Your task to perform on an android device: Show the shopping cart on amazon.com. Search for "jbl charge 4" on amazon.com, select the first entry, add it to the cart, then select checkout. Image 0: 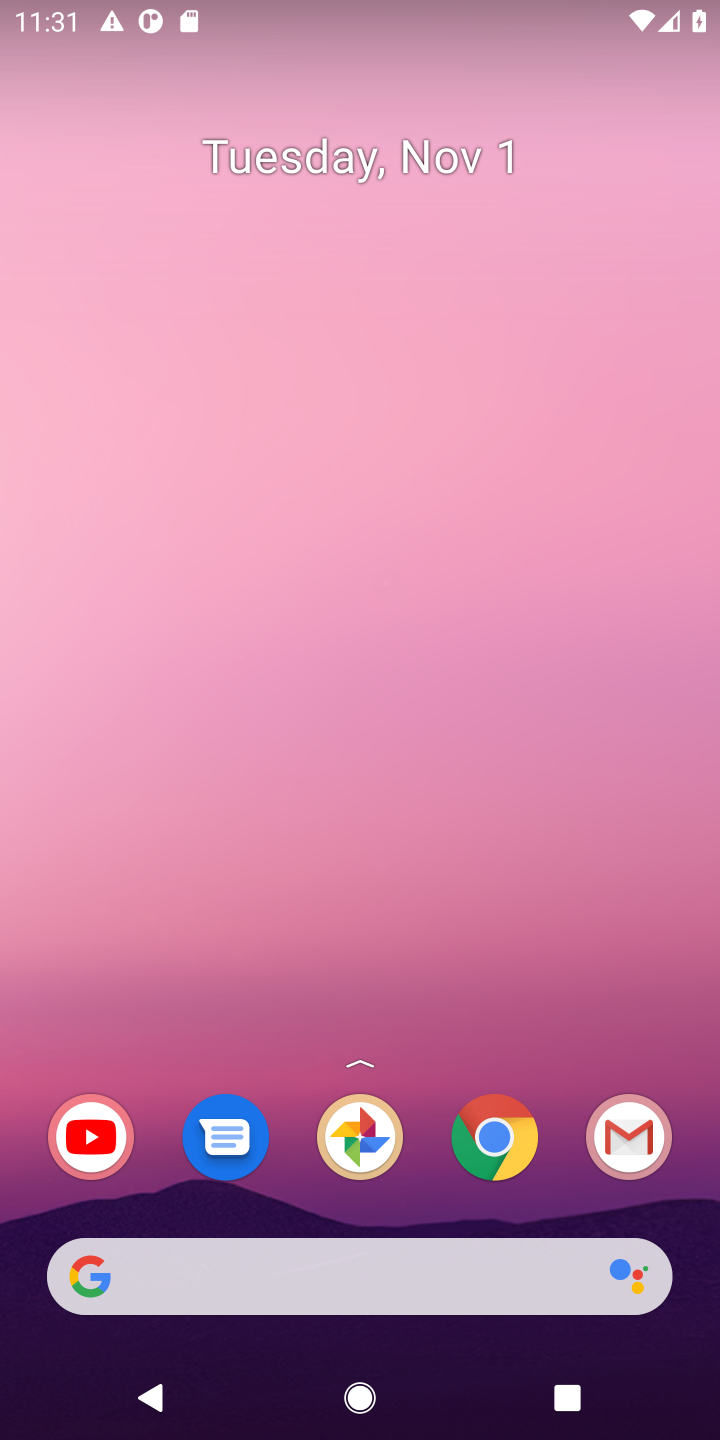
Step 0: click (313, 1257)
Your task to perform on an android device: Show the shopping cart on amazon.com. Search for "jbl charge 4" on amazon.com, select the first entry, add it to the cart, then select checkout. Image 1: 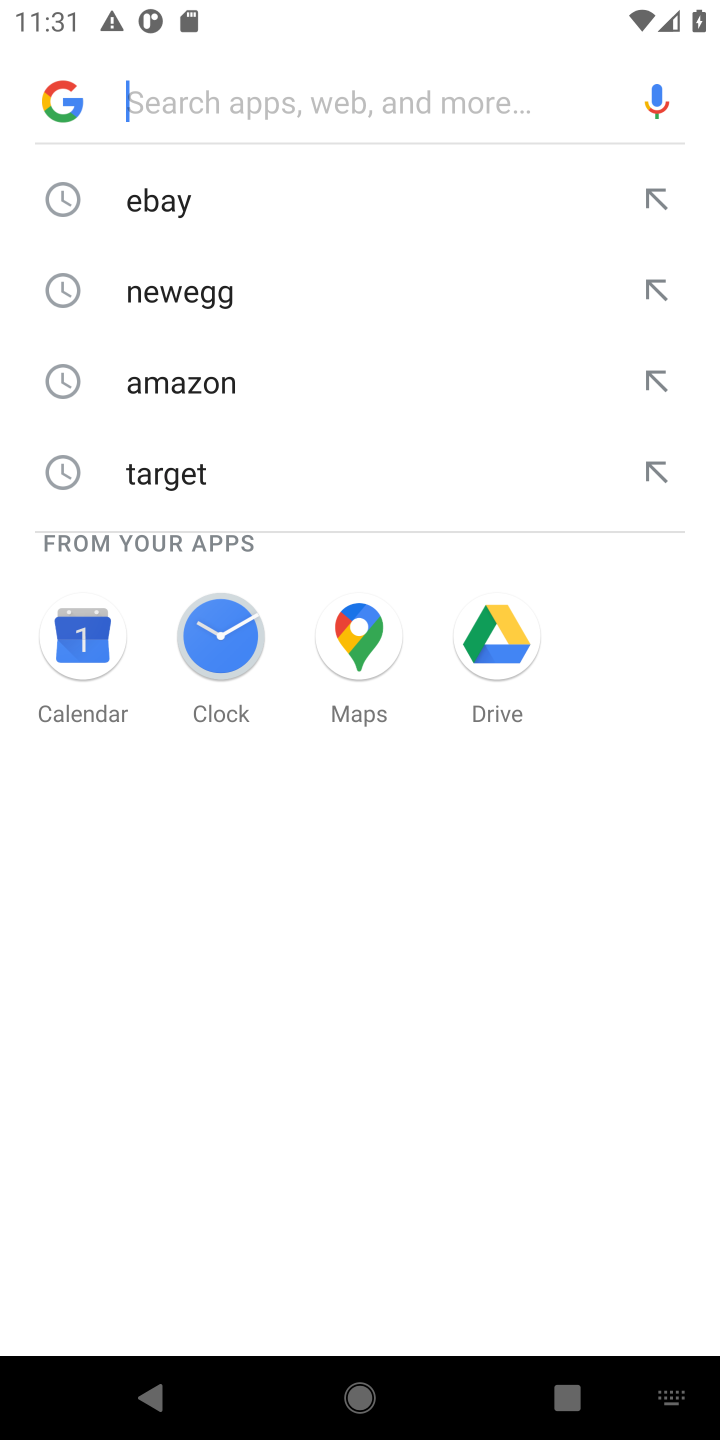
Step 1: click (220, 385)
Your task to perform on an android device: Show the shopping cart on amazon.com. Search for "jbl charge 4" on amazon.com, select the first entry, add it to the cart, then select checkout. Image 2: 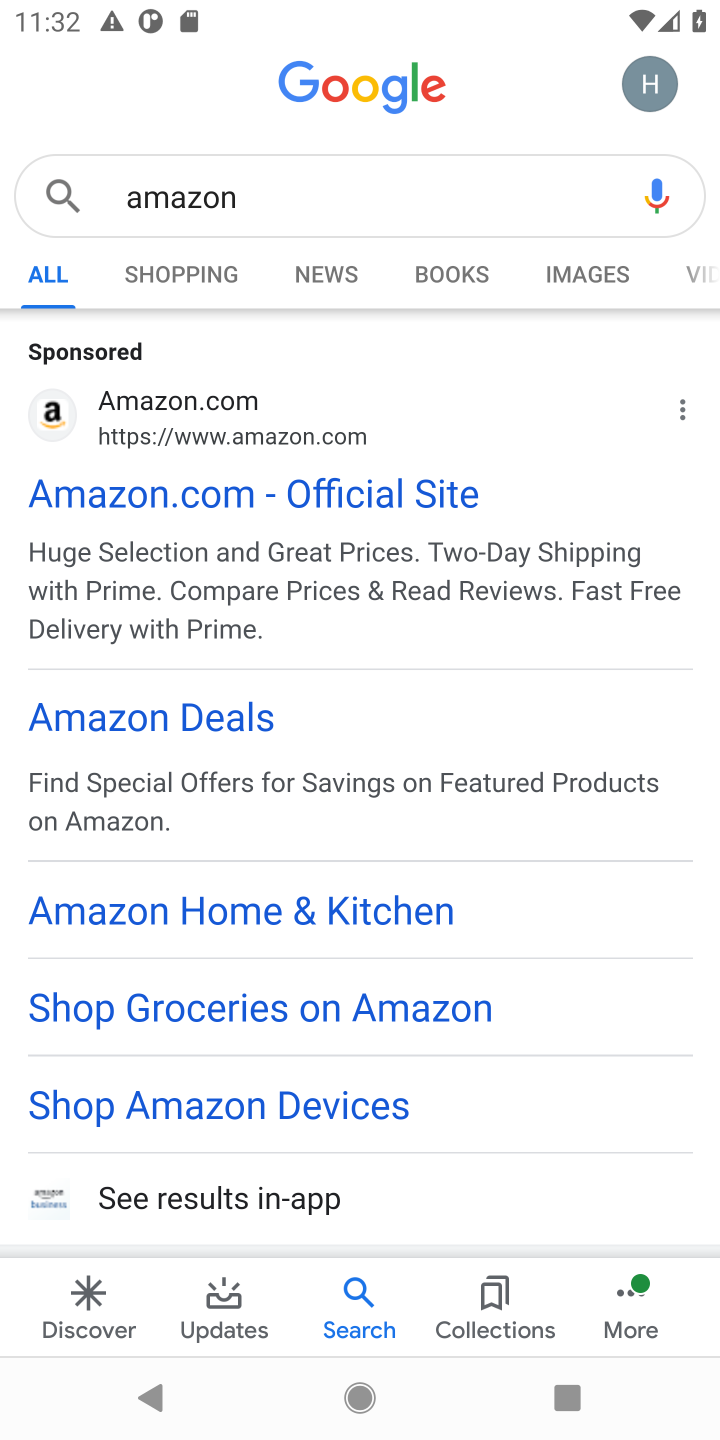
Step 2: click (132, 490)
Your task to perform on an android device: Show the shopping cart on amazon.com. Search for "jbl charge 4" on amazon.com, select the first entry, add it to the cart, then select checkout. Image 3: 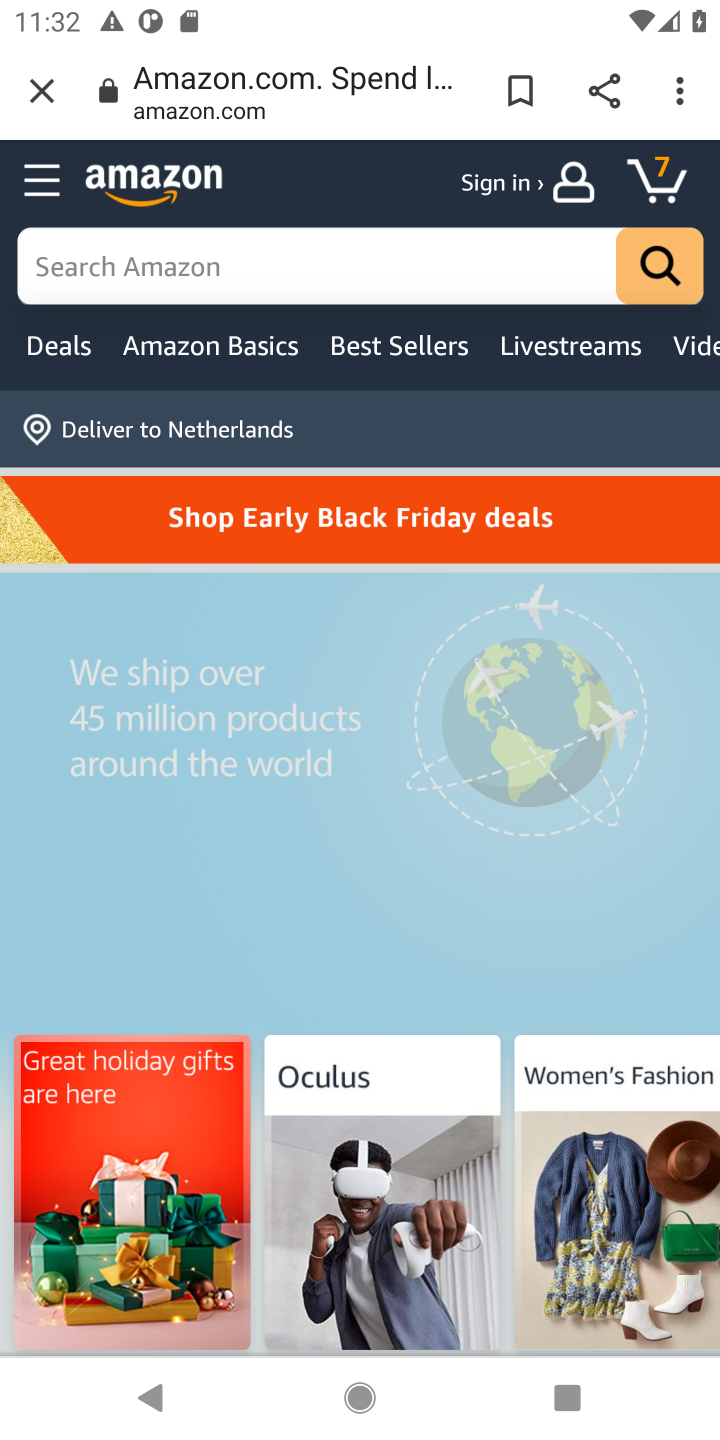
Step 3: click (660, 168)
Your task to perform on an android device: Show the shopping cart on amazon.com. Search for "jbl charge 4" on amazon.com, select the first entry, add it to the cart, then select checkout. Image 4: 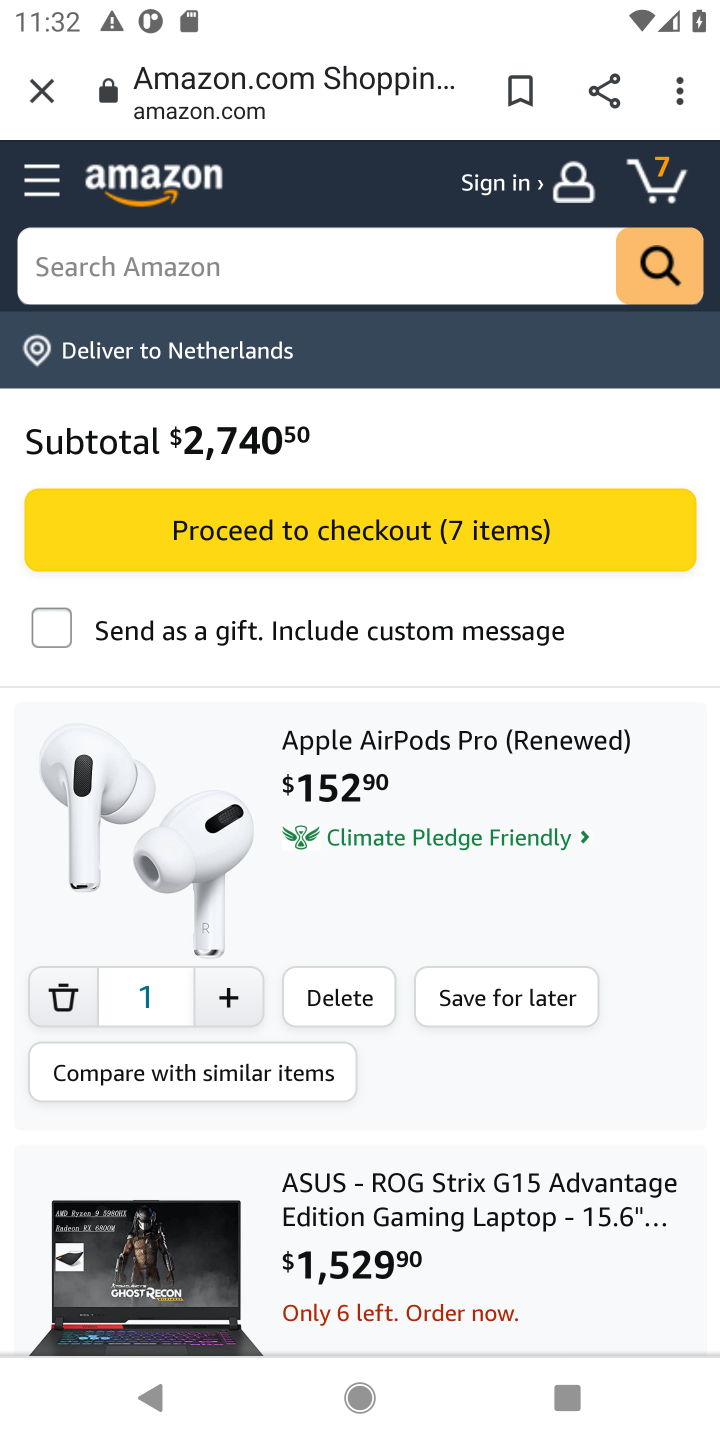
Step 4: click (436, 265)
Your task to perform on an android device: Show the shopping cart on amazon.com. Search for "jbl charge 4" on amazon.com, select the first entry, add it to the cart, then select checkout. Image 5: 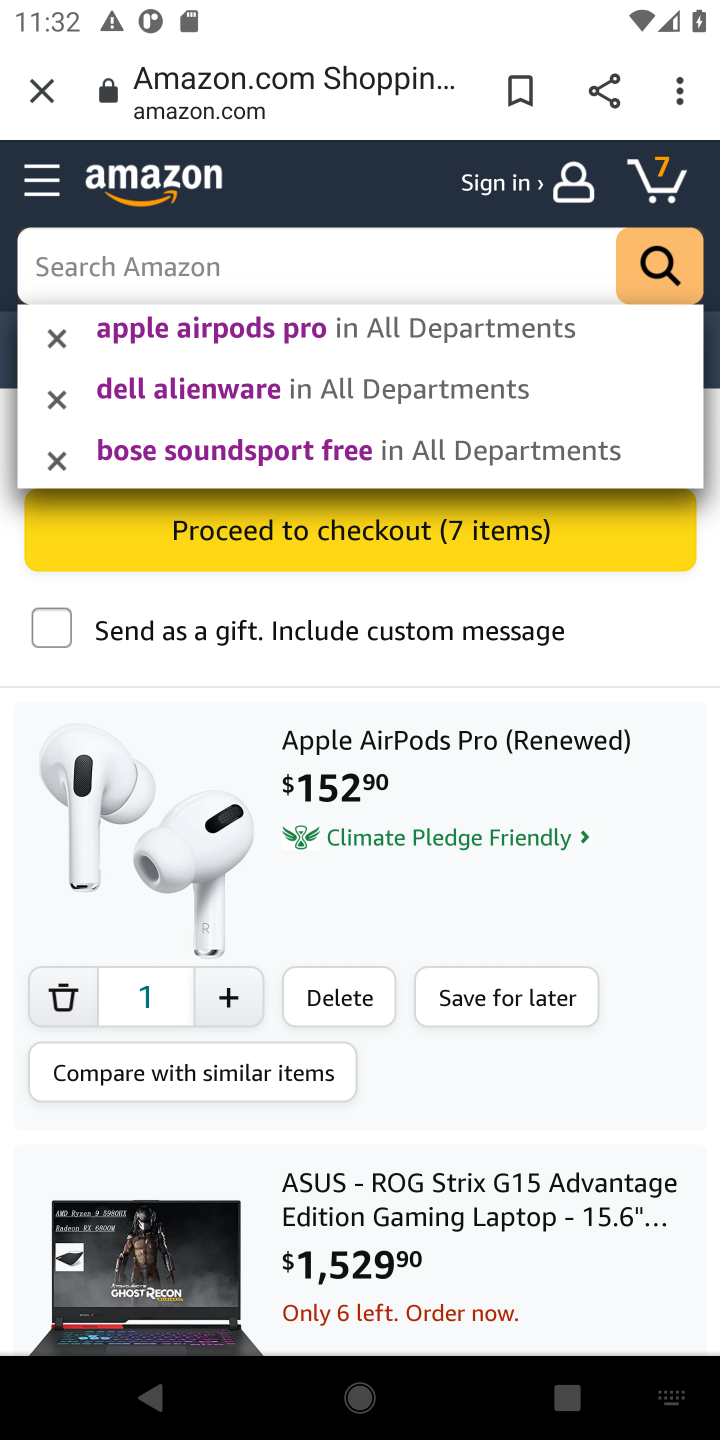
Step 5: drag from (468, 1171) to (446, 625)
Your task to perform on an android device: Show the shopping cart on amazon.com. Search for "jbl charge 4" on amazon.com, select the first entry, add it to the cart, then select checkout. Image 6: 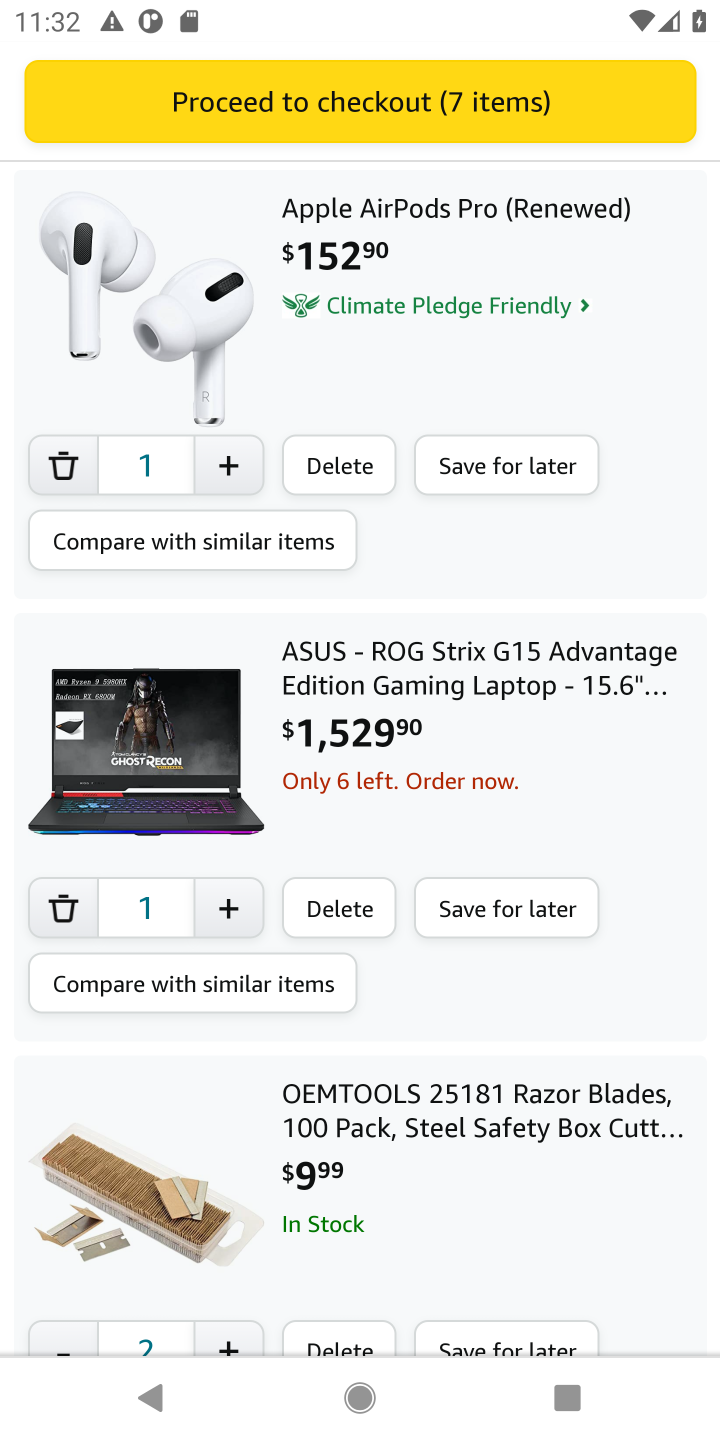
Step 6: drag from (451, 1124) to (420, 632)
Your task to perform on an android device: Show the shopping cart on amazon.com. Search for "jbl charge 4" on amazon.com, select the first entry, add it to the cart, then select checkout. Image 7: 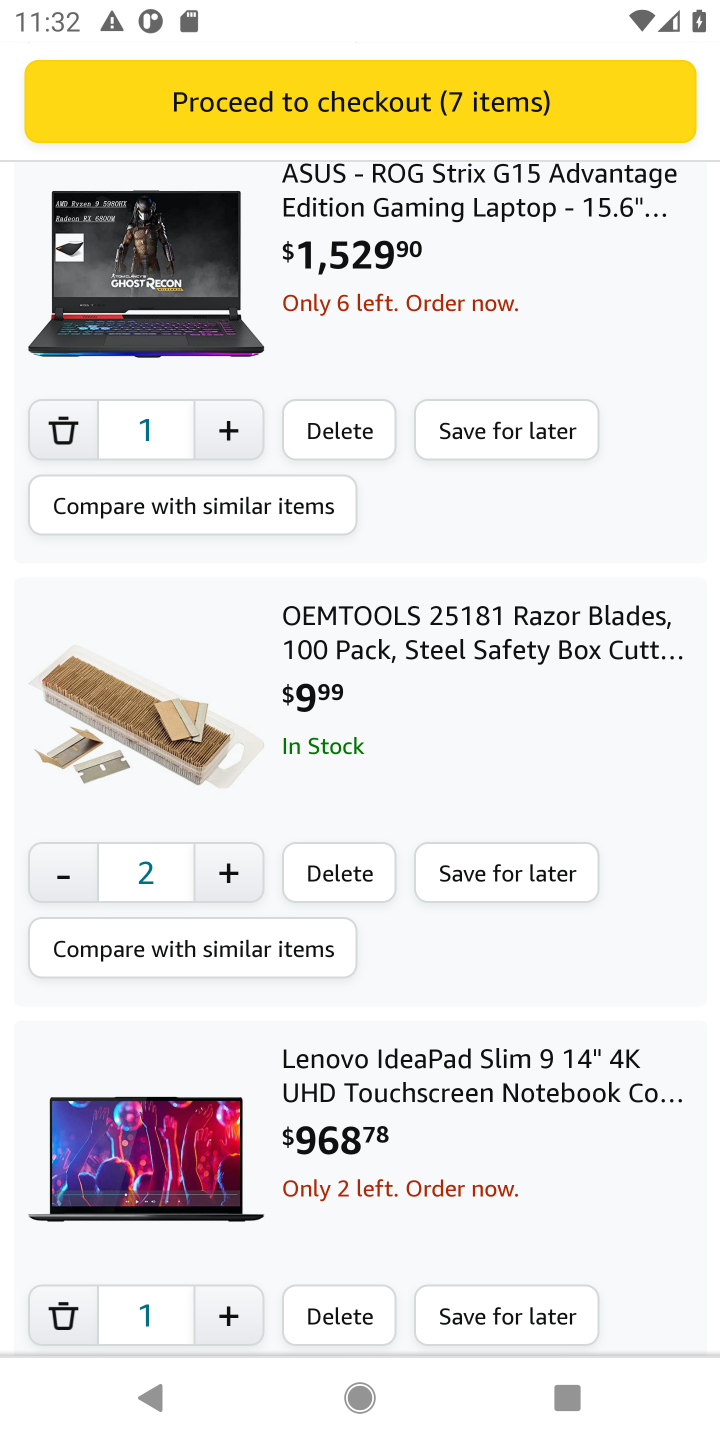
Step 7: drag from (467, 1026) to (488, 784)
Your task to perform on an android device: Show the shopping cart on amazon.com. Search for "jbl charge 4" on amazon.com, select the first entry, add it to the cart, then select checkout. Image 8: 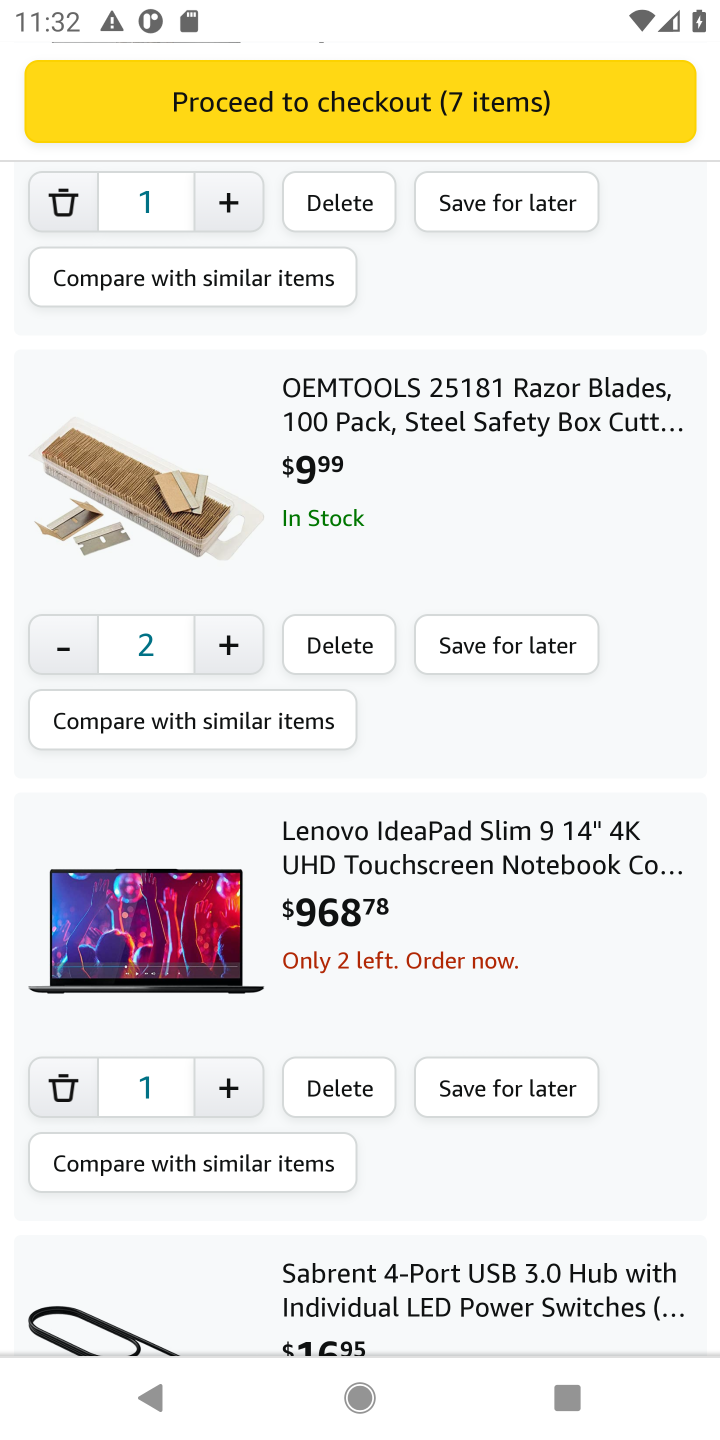
Step 8: click (552, 441)
Your task to perform on an android device: Show the shopping cart on amazon.com. Search for "jbl charge 4" on amazon.com, select the first entry, add it to the cart, then select checkout. Image 9: 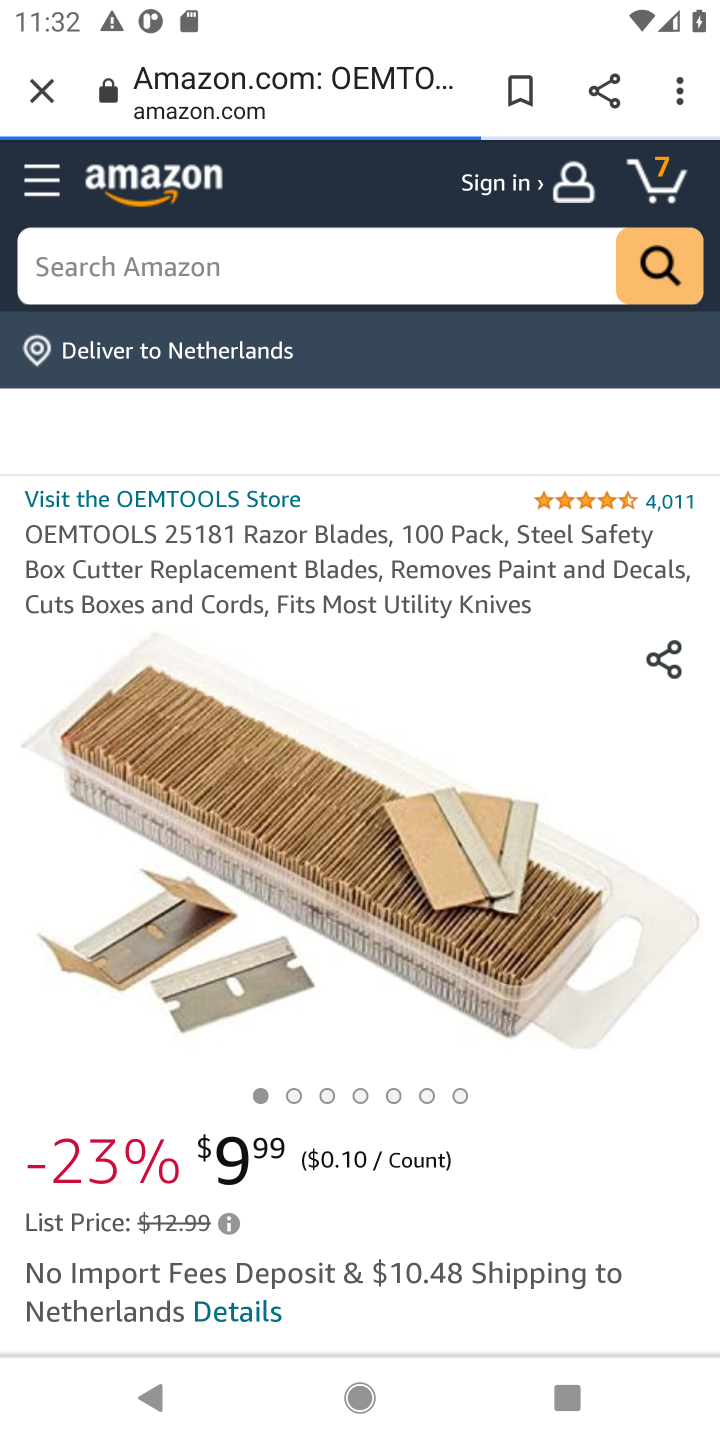
Step 9: click (495, 288)
Your task to perform on an android device: Show the shopping cart on amazon.com. Search for "jbl charge 4" on amazon.com, select the first entry, add it to the cart, then select checkout. Image 10: 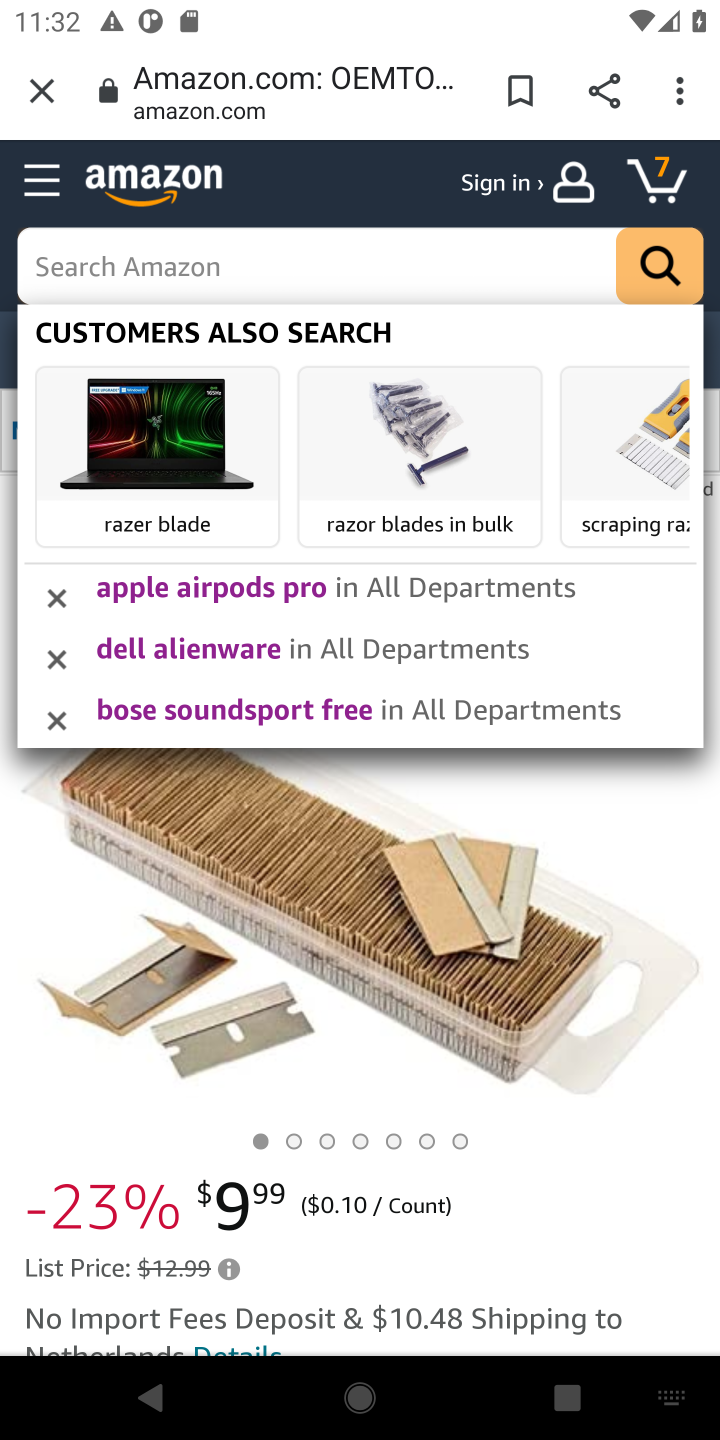
Step 10: type "jbl charge 4"
Your task to perform on an android device: Show the shopping cart on amazon.com. Search for "jbl charge 4" on amazon.com, select the first entry, add it to the cart, then select checkout. Image 11: 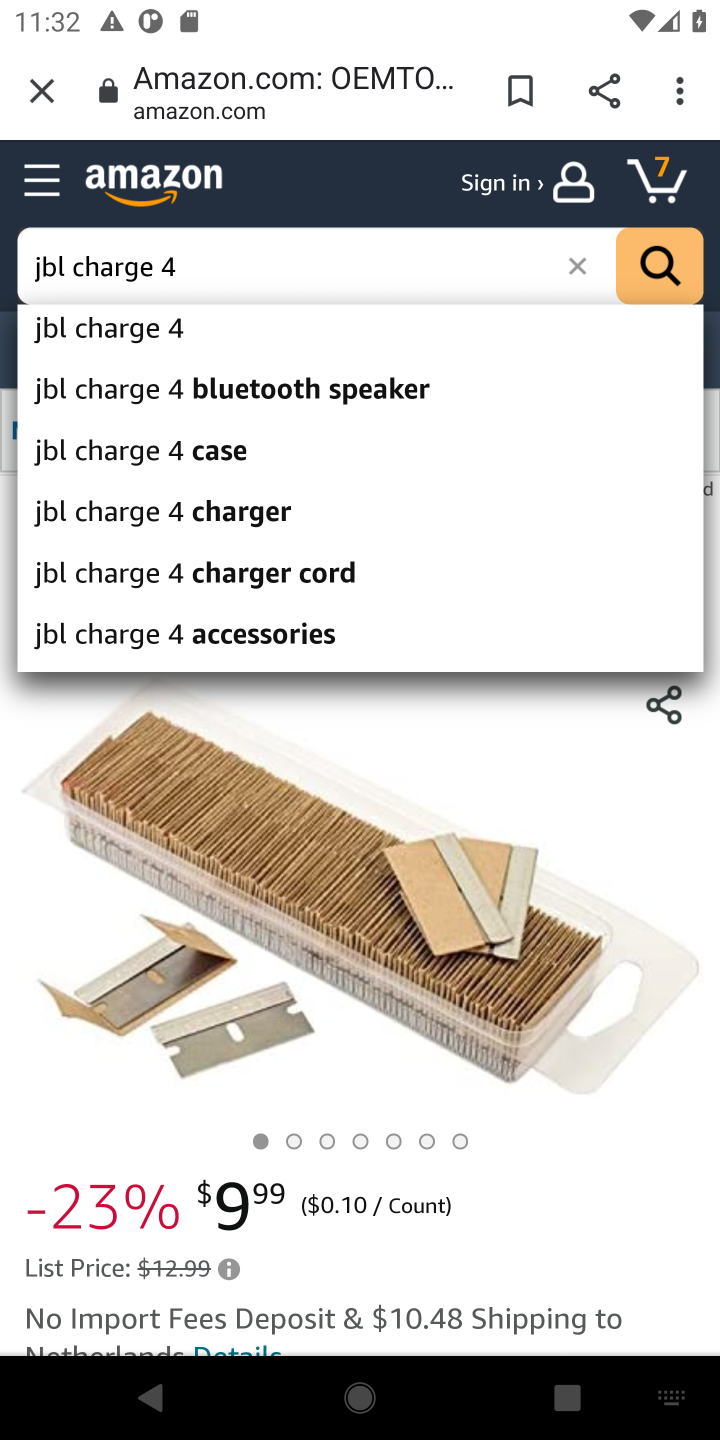
Step 11: type ""
Your task to perform on an android device: Show the shopping cart on amazon.com. Search for "jbl charge 4" on amazon.com, select the first entry, add it to the cart, then select checkout. Image 12: 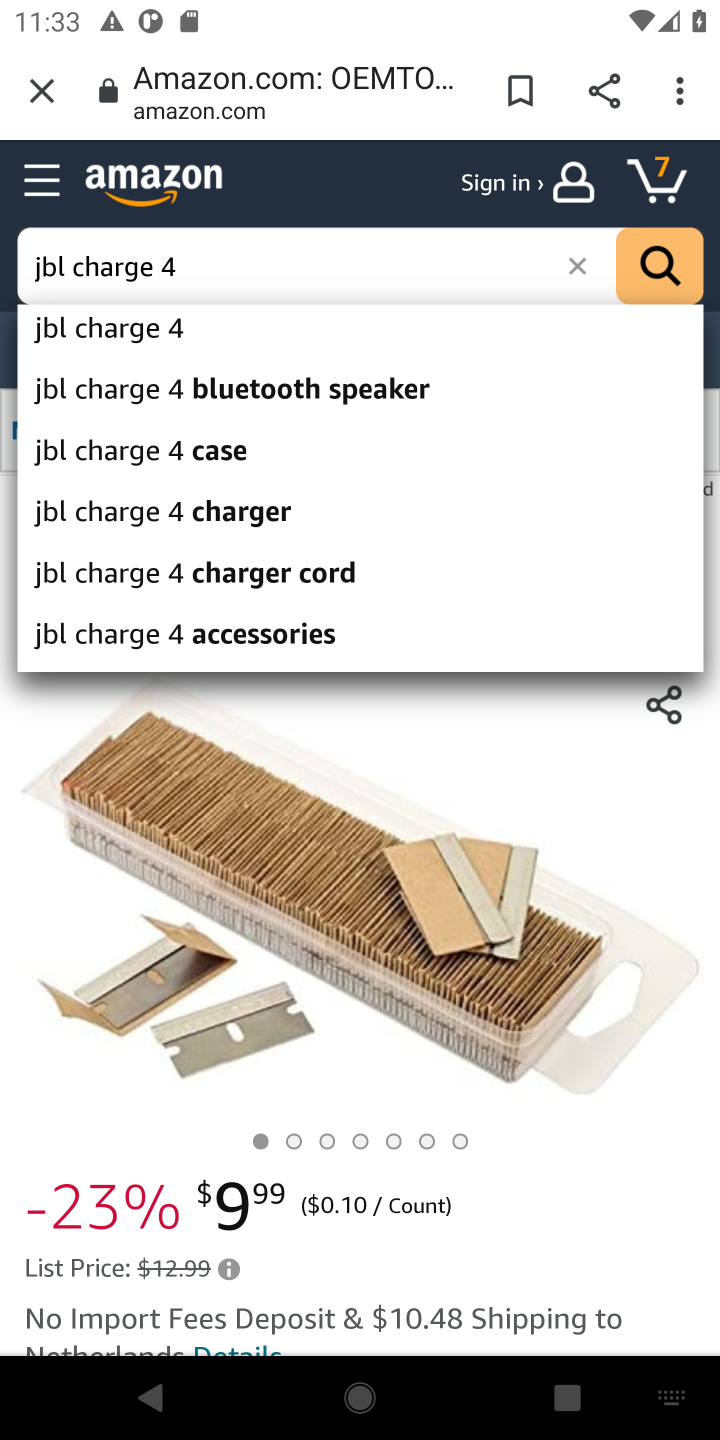
Step 12: type ""
Your task to perform on an android device: Show the shopping cart on amazon.com. Search for "jbl charge 4" on amazon.com, select the first entry, add it to the cart, then select checkout. Image 13: 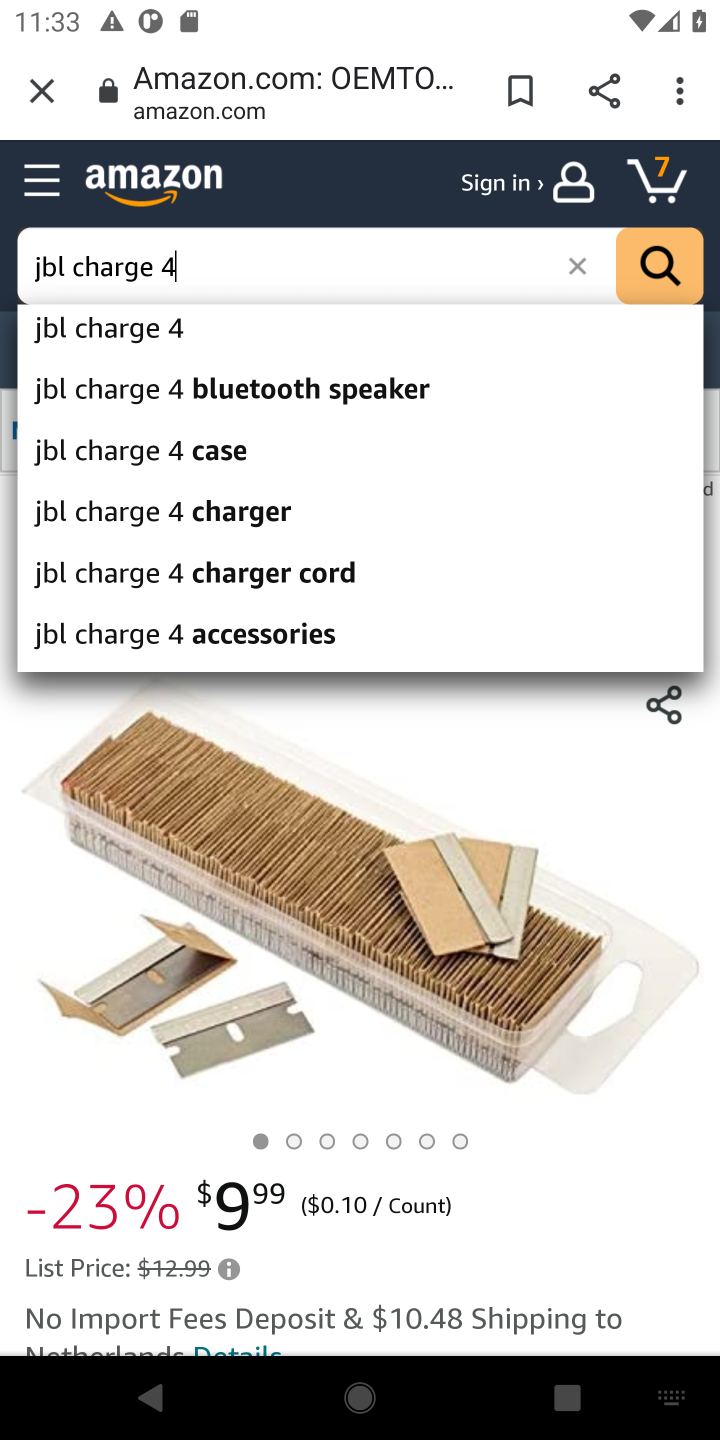
Step 13: click (150, 342)
Your task to perform on an android device: Show the shopping cart on amazon.com. Search for "jbl charge 4" on amazon.com, select the first entry, add it to the cart, then select checkout. Image 14: 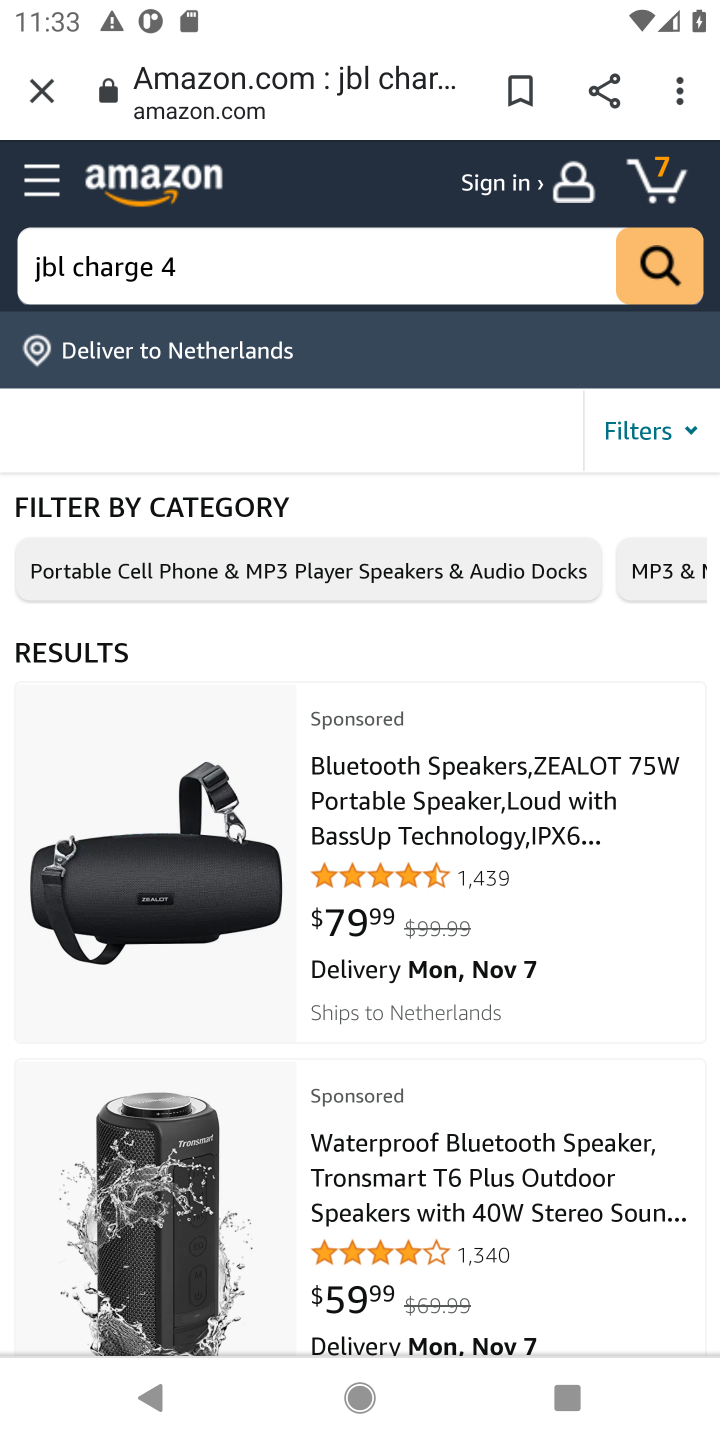
Step 14: click (377, 840)
Your task to perform on an android device: Show the shopping cart on amazon.com. Search for "jbl charge 4" on amazon.com, select the first entry, add it to the cart, then select checkout. Image 15: 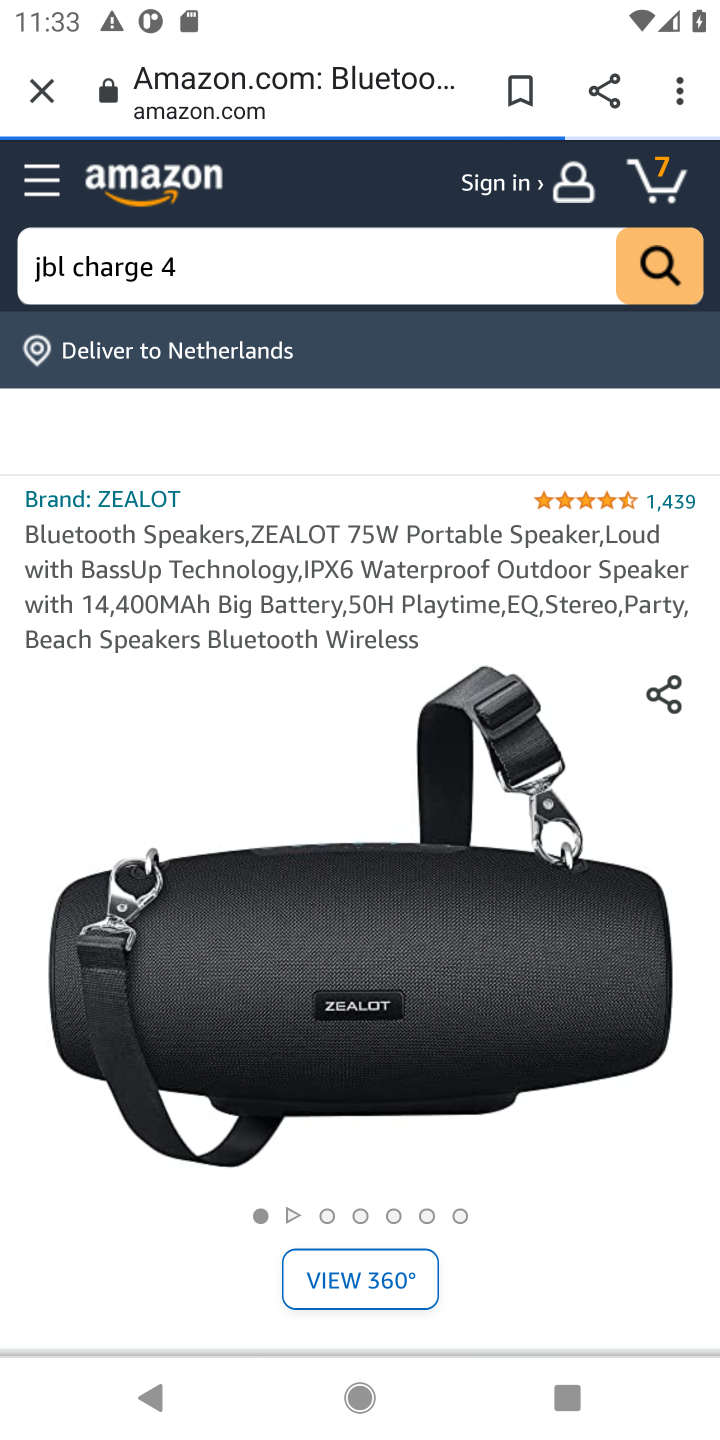
Step 15: drag from (553, 1217) to (542, 676)
Your task to perform on an android device: Show the shopping cart on amazon.com. Search for "jbl charge 4" on amazon.com, select the first entry, add it to the cart, then select checkout. Image 16: 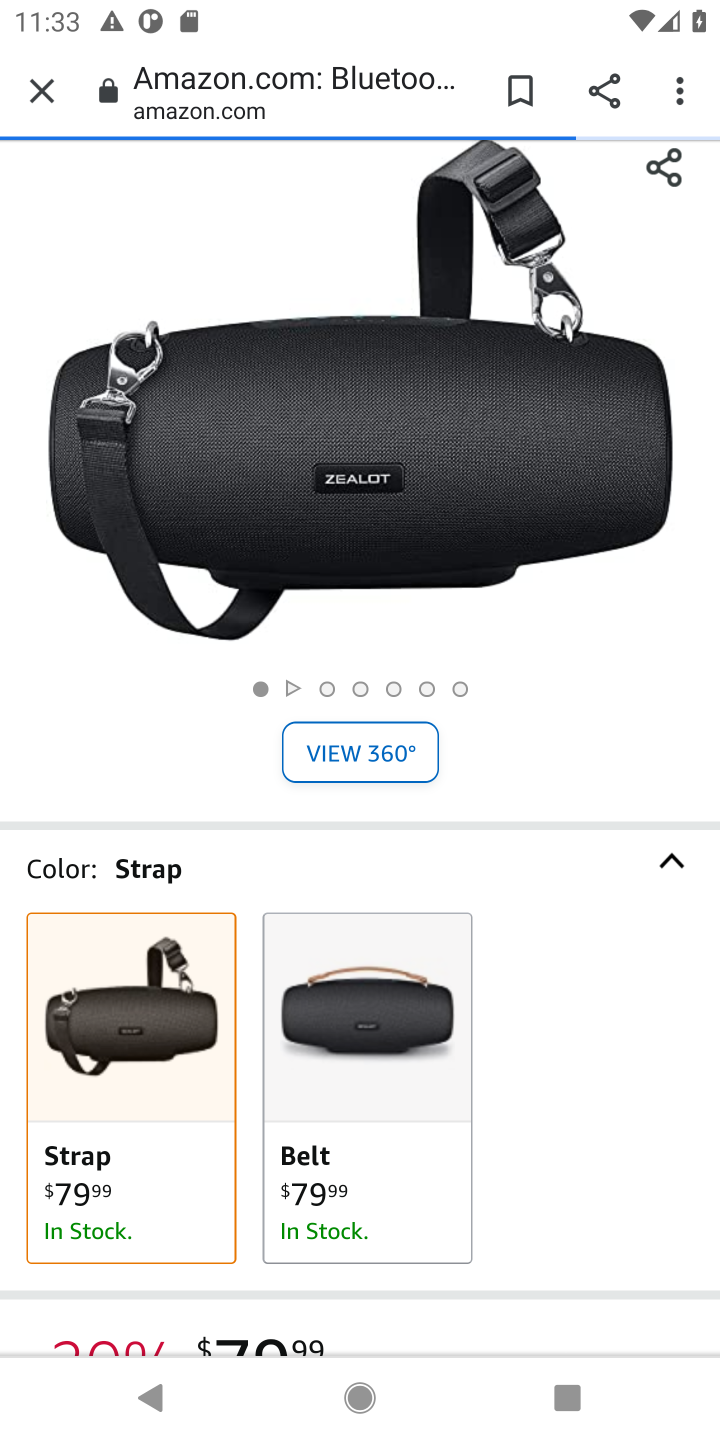
Step 16: drag from (627, 854) to (622, 757)
Your task to perform on an android device: Show the shopping cart on amazon.com. Search for "jbl charge 4" on amazon.com, select the first entry, add it to the cart, then select checkout. Image 17: 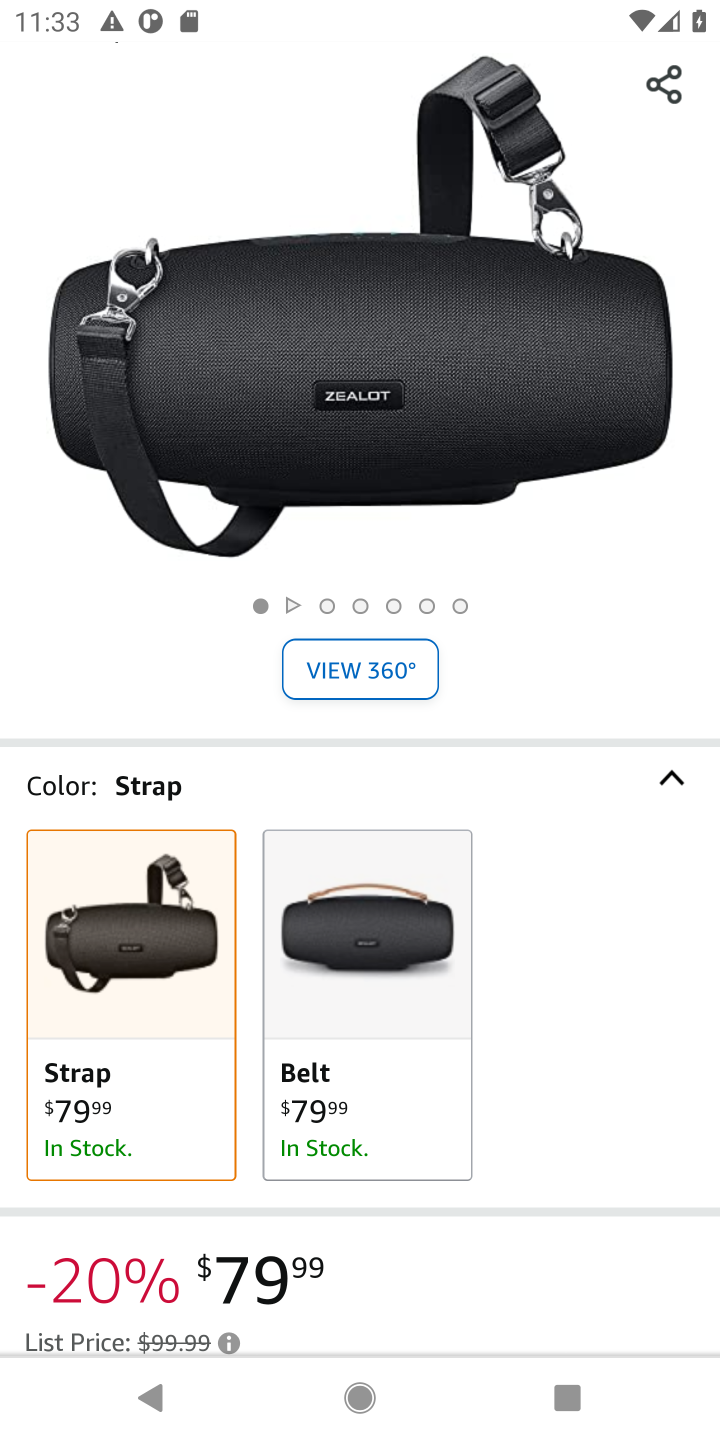
Step 17: drag from (535, 936) to (549, 785)
Your task to perform on an android device: Show the shopping cart on amazon.com. Search for "jbl charge 4" on amazon.com, select the first entry, add it to the cart, then select checkout. Image 18: 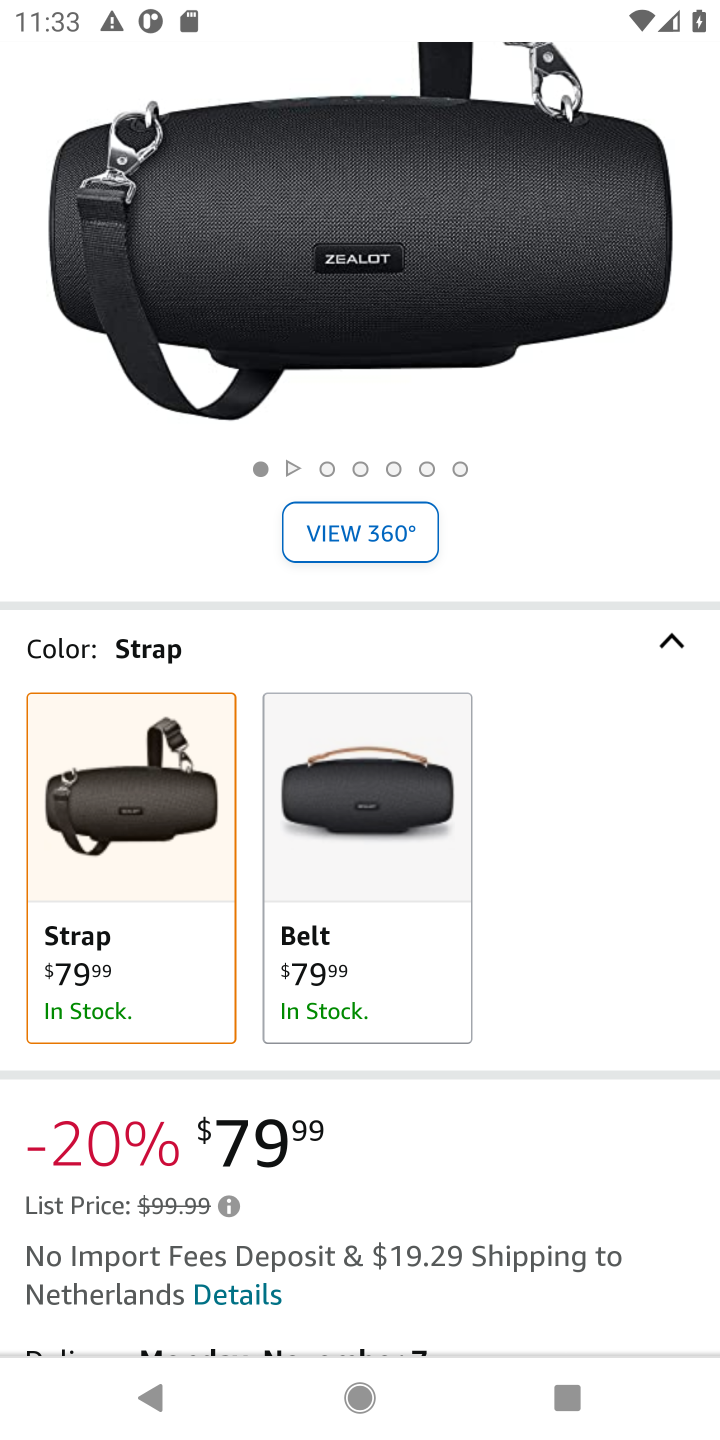
Step 18: drag from (406, 1228) to (481, 757)
Your task to perform on an android device: Show the shopping cart on amazon.com. Search for "jbl charge 4" on amazon.com, select the first entry, add it to the cart, then select checkout. Image 19: 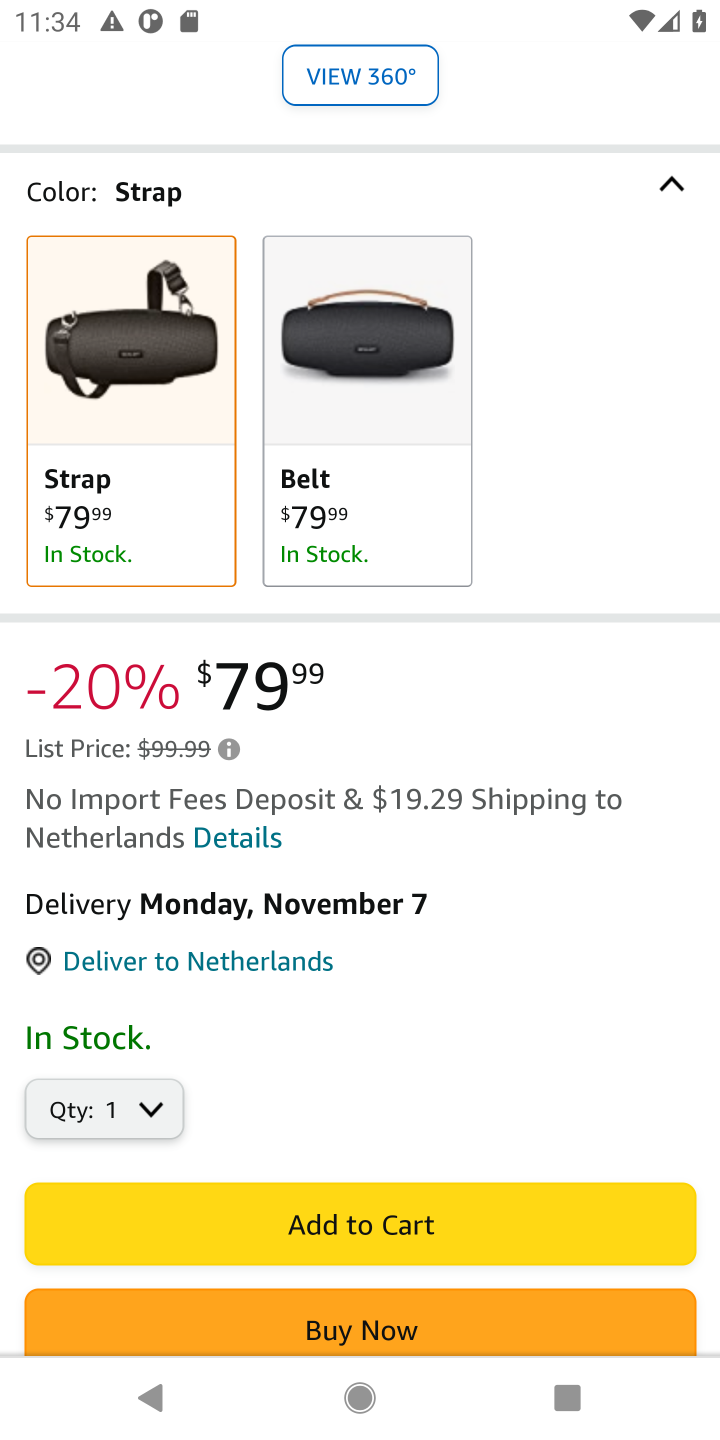
Step 19: click (347, 1221)
Your task to perform on an android device: Show the shopping cart on amazon.com. Search for "jbl charge 4" on amazon.com, select the first entry, add it to the cart, then select checkout. Image 20: 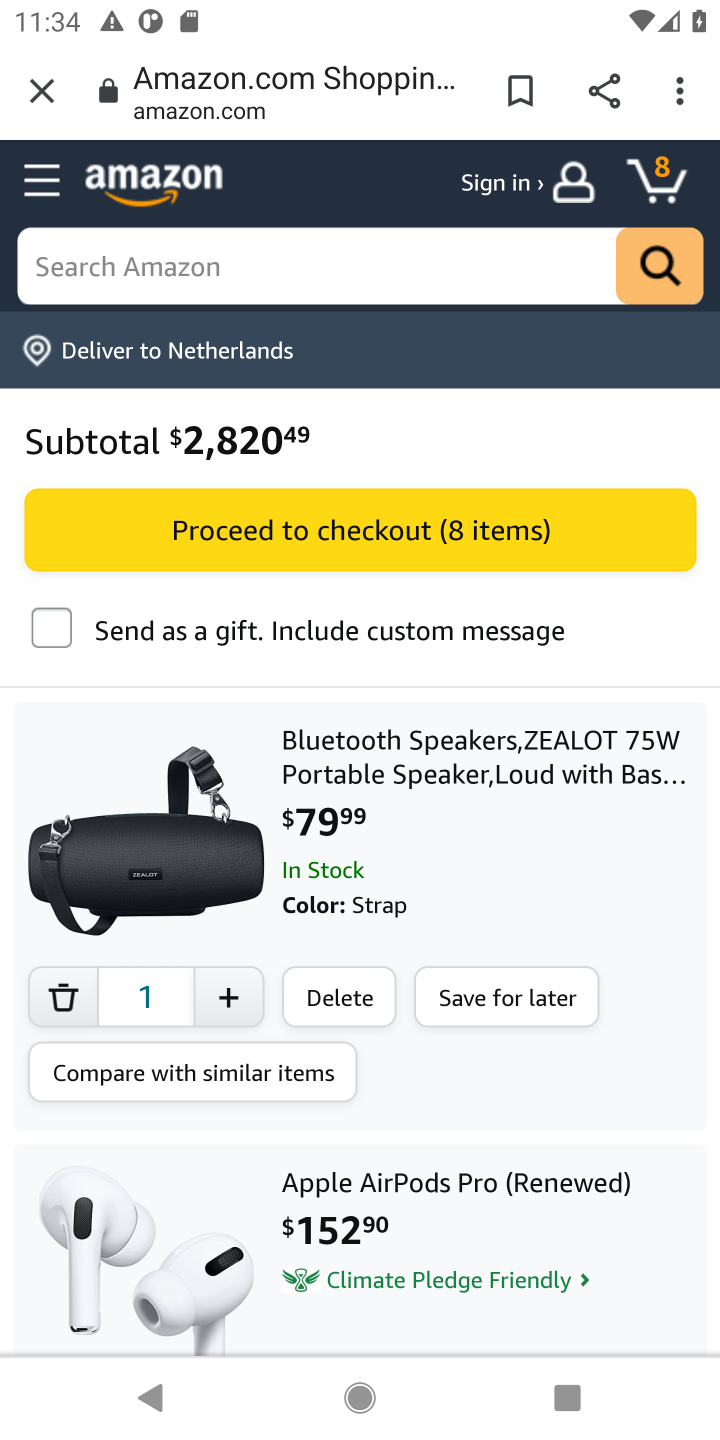
Step 20: click (385, 515)
Your task to perform on an android device: Show the shopping cart on amazon.com. Search for "jbl charge 4" on amazon.com, select the first entry, add it to the cart, then select checkout. Image 21: 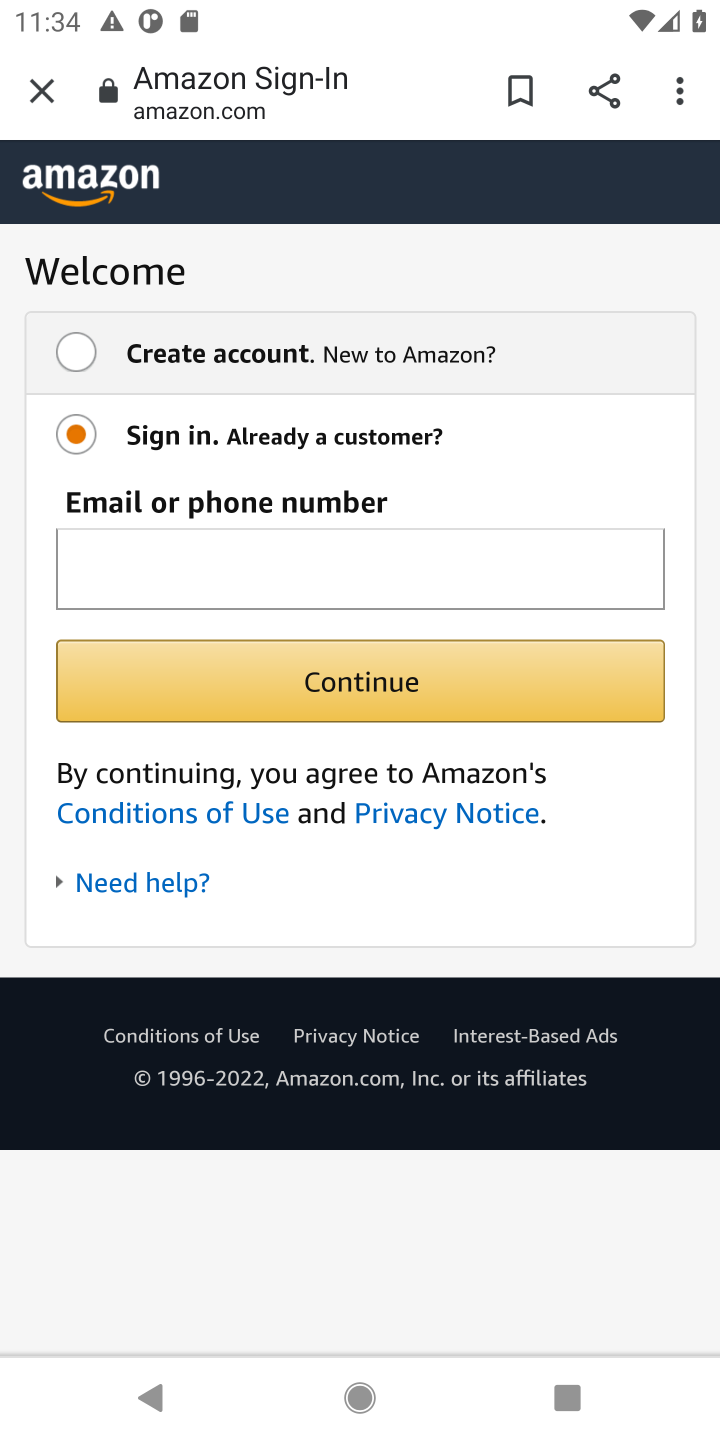
Step 21: task complete